Your task to perform on an android device: toggle wifi Image 0: 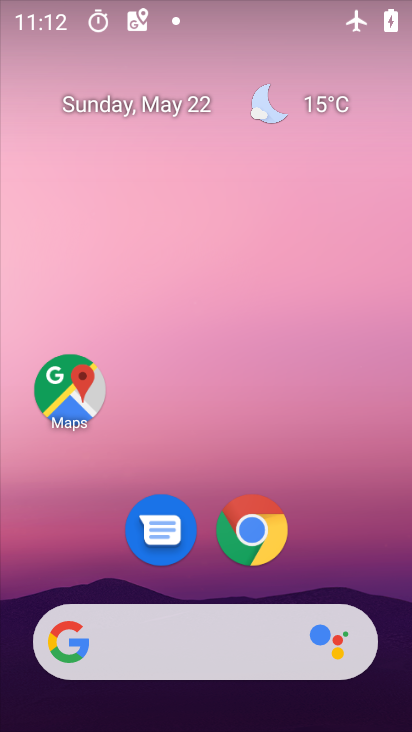
Step 0: click (370, 204)
Your task to perform on an android device: toggle wifi Image 1: 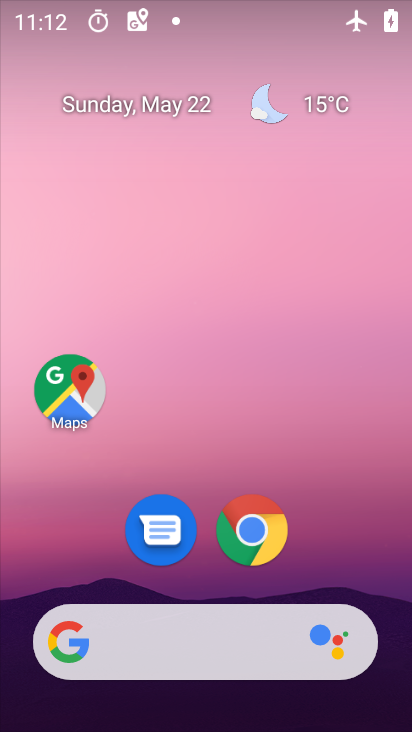
Step 1: drag from (393, 647) to (335, 242)
Your task to perform on an android device: toggle wifi Image 2: 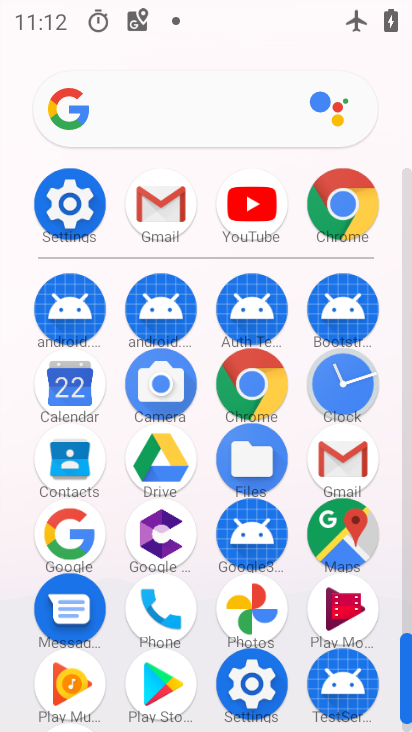
Step 2: click (77, 198)
Your task to perform on an android device: toggle wifi Image 3: 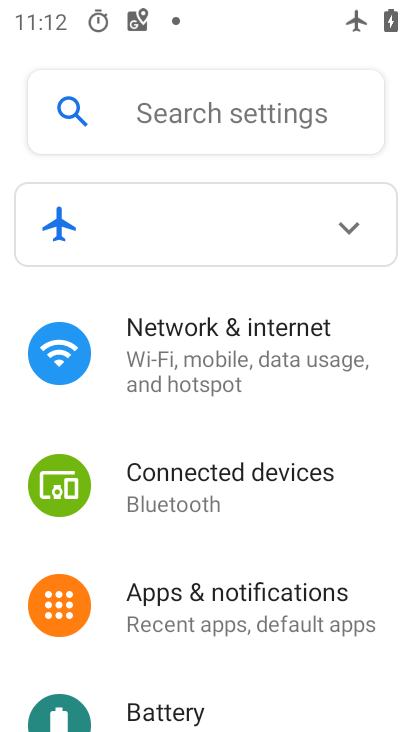
Step 3: drag from (312, 680) to (281, 325)
Your task to perform on an android device: toggle wifi Image 4: 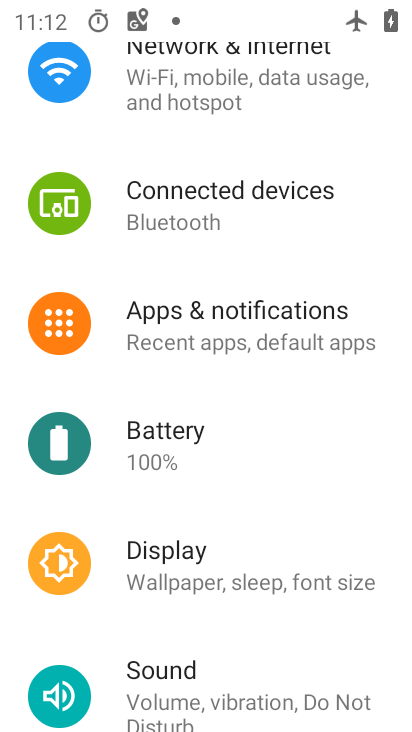
Step 4: drag from (294, 116) to (317, 602)
Your task to perform on an android device: toggle wifi Image 5: 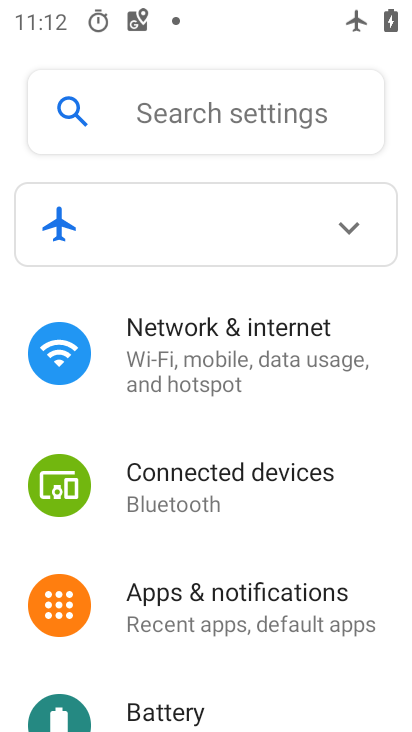
Step 5: click (182, 359)
Your task to perform on an android device: toggle wifi Image 6: 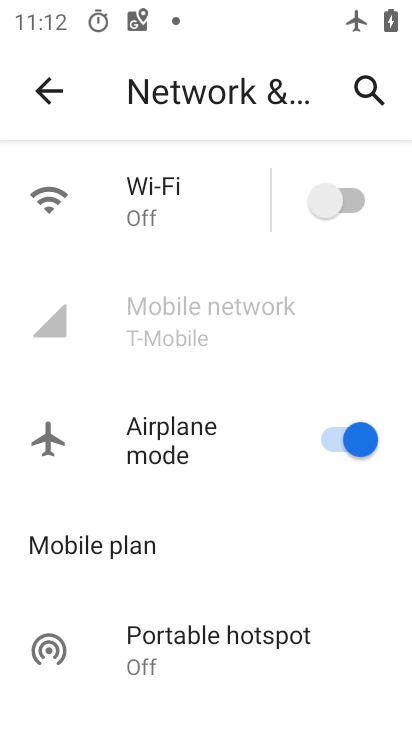
Step 6: click (347, 189)
Your task to perform on an android device: toggle wifi Image 7: 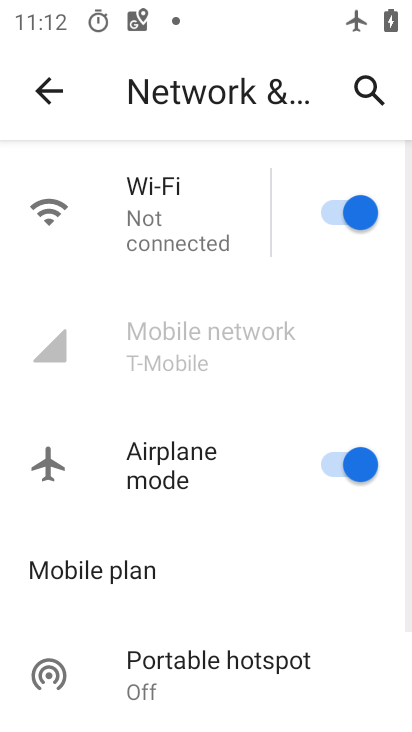
Step 7: click (332, 473)
Your task to perform on an android device: toggle wifi Image 8: 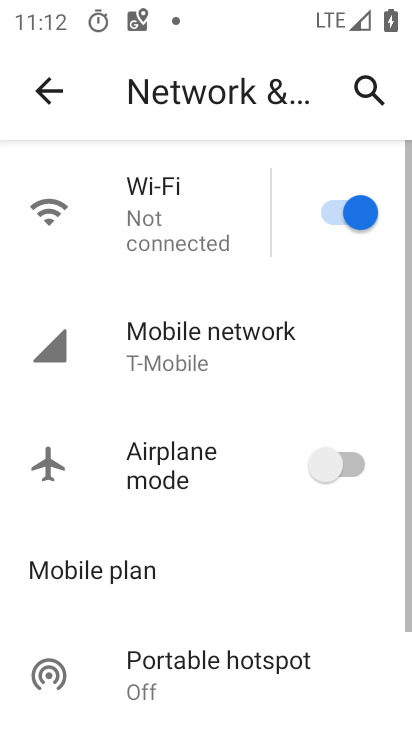
Step 8: task complete